Your task to perform on an android device: turn off notifications in google photos Image 0: 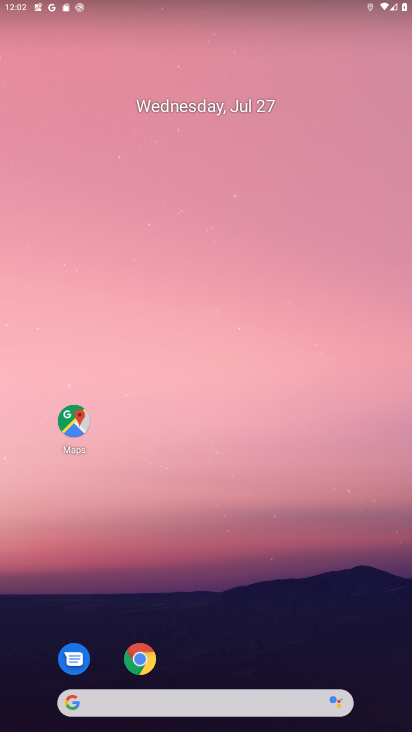
Step 0: drag from (284, 705) to (282, 11)
Your task to perform on an android device: turn off notifications in google photos Image 1: 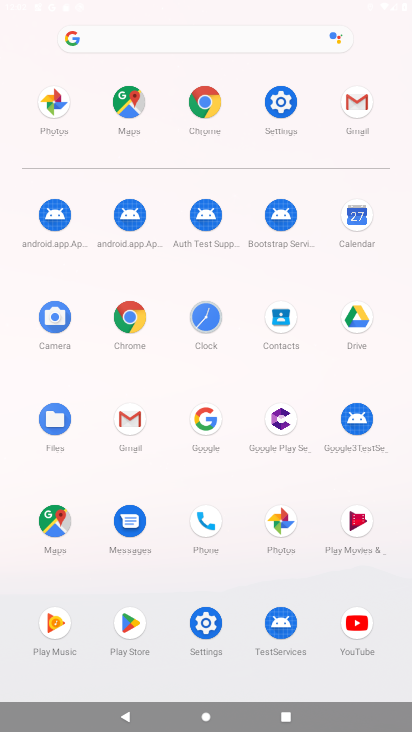
Step 1: click (277, 531)
Your task to perform on an android device: turn off notifications in google photos Image 2: 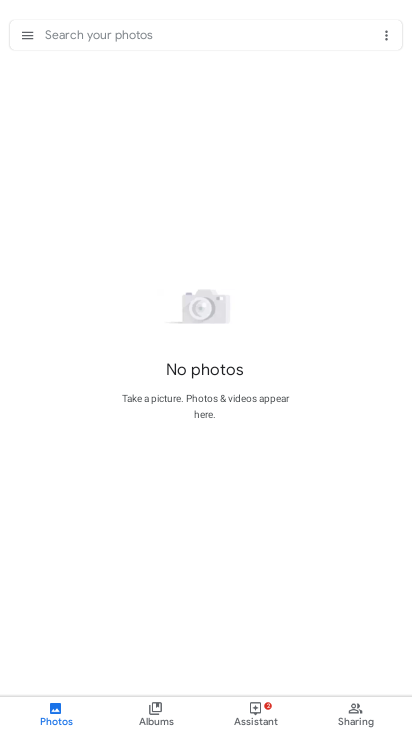
Step 2: click (25, 34)
Your task to perform on an android device: turn off notifications in google photos Image 3: 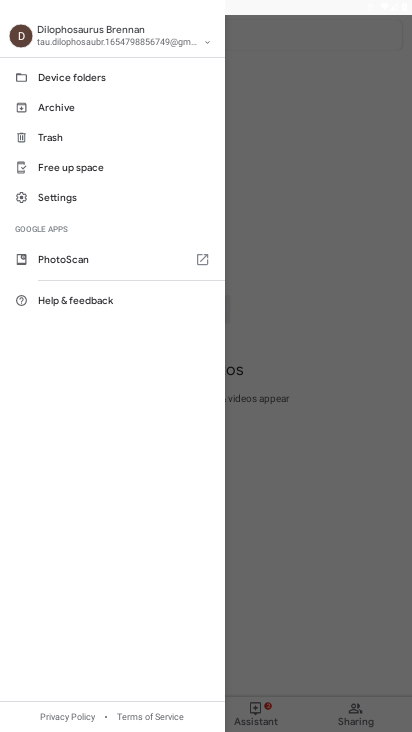
Step 3: click (83, 210)
Your task to perform on an android device: turn off notifications in google photos Image 4: 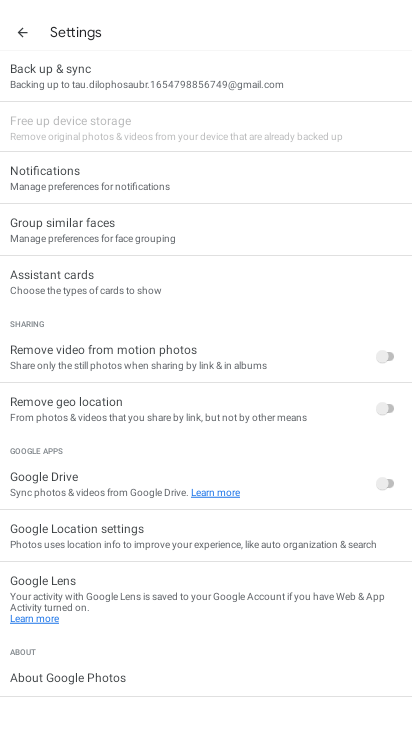
Step 4: click (87, 172)
Your task to perform on an android device: turn off notifications in google photos Image 5: 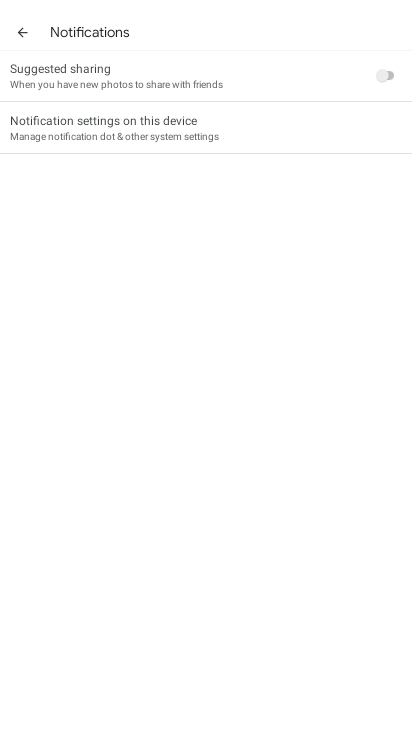
Step 5: click (117, 139)
Your task to perform on an android device: turn off notifications in google photos Image 6: 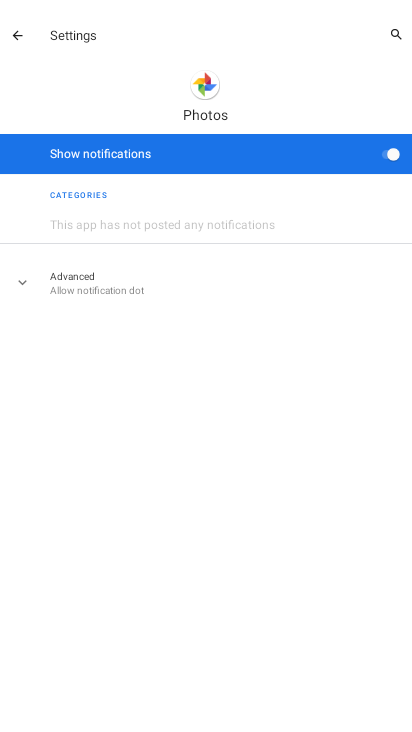
Step 6: click (389, 155)
Your task to perform on an android device: turn off notifications in google photos Image 7: 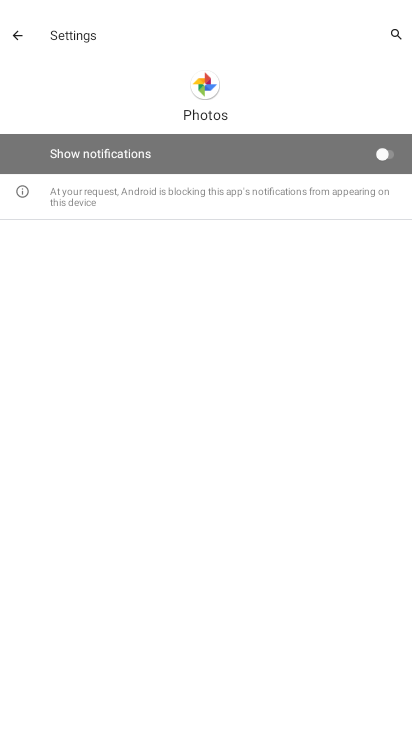
Step 7: task complete